Your task to perform on an android device: Open Google Chrome Image 0: 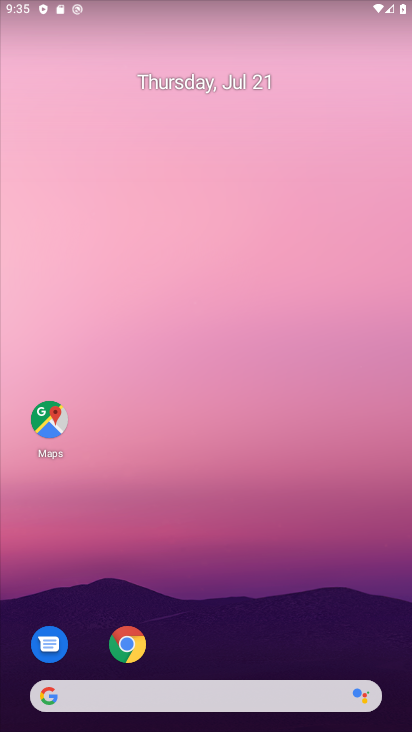
Step 0: click (131, 625)
Your task to perform on an android device: Open Google Chrome Image 1: 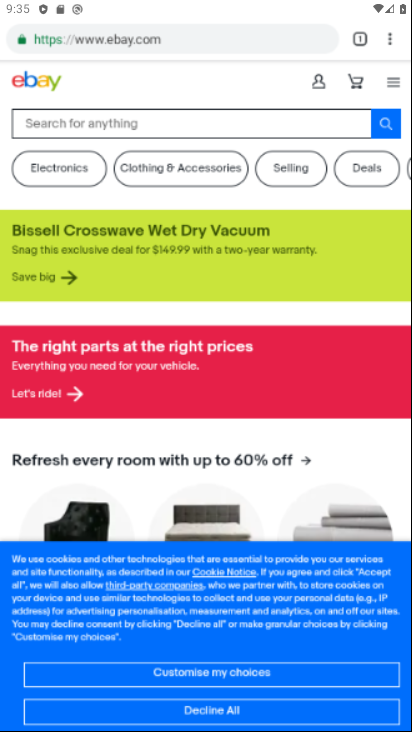
Step 1: task complete